Your task to perform on an android device: toggle javascript in the chrome app Image 0: 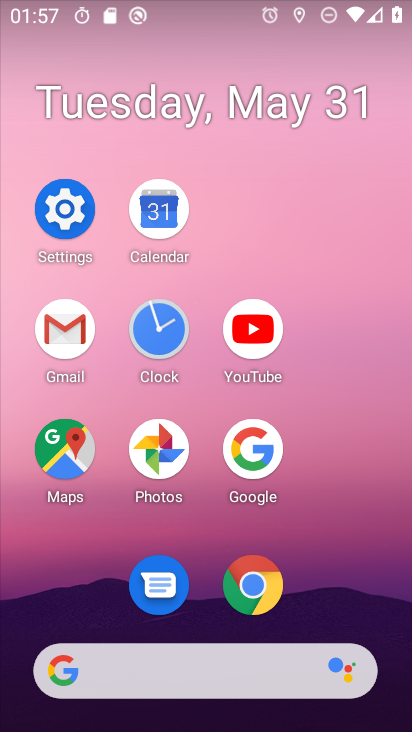
Step 0: click (279, 589)
Your task to perform on an android device: toggle javascript in the chrome app Image 1: 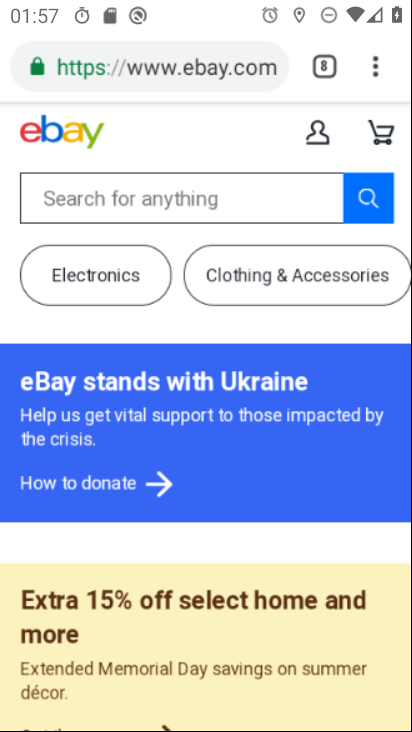
Step 1: click (366, 71)
Your task to perform on an android device: toggle javascript in the chrome app Image 2: 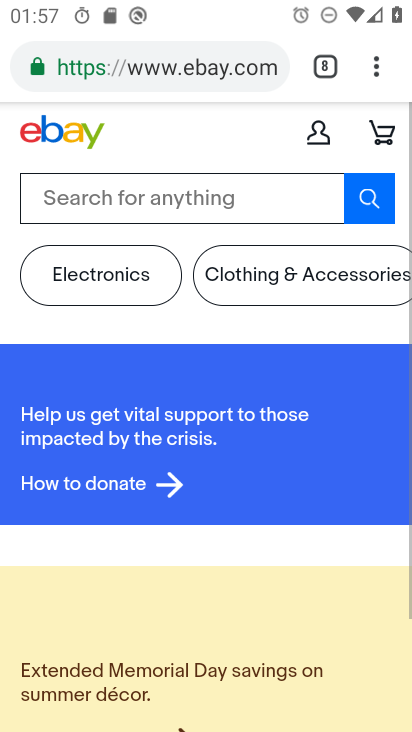
Step 2: click (394, 66)
Your task to perform on an android device: toggle javascript in the chrome app Image 3: 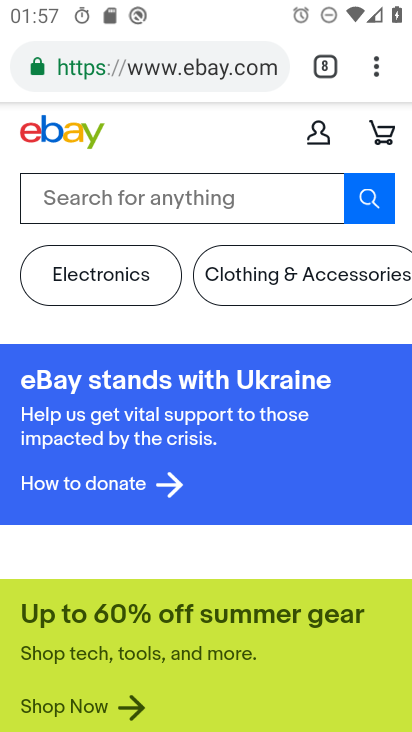
Step 3: click (394, 66)
Your task to perform on an android device: toggle javascript in the chrome app Image 4: 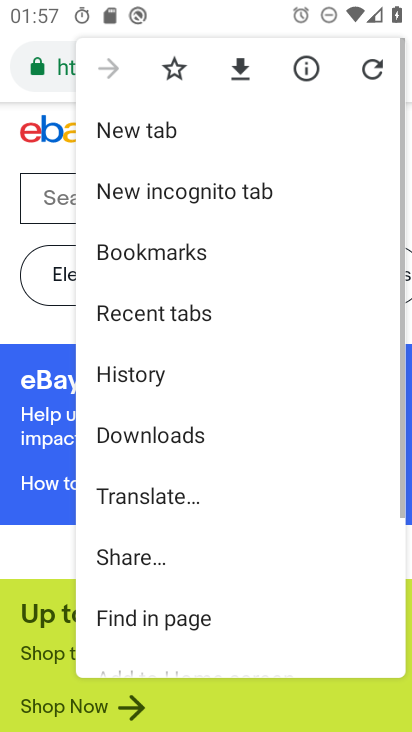
Step 4: drag from (265, 586) to (205, 166)
Your task to perform on an android device: toggle javascript in the chrome app Image 5: 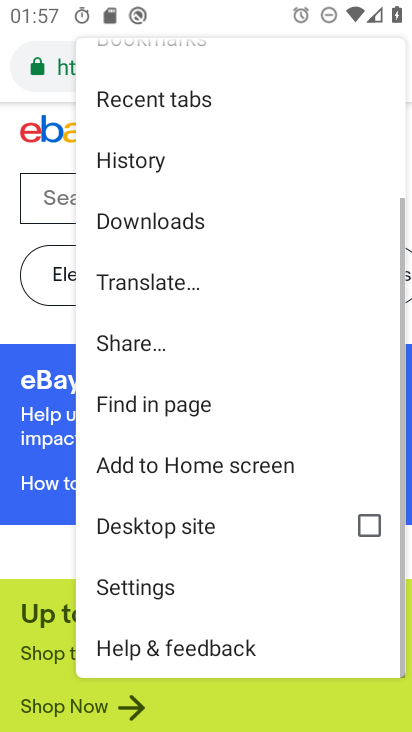
Step 5: click (163, 573)
Your task to perform on an android device: toggle javascript in the chrome app Image 6: 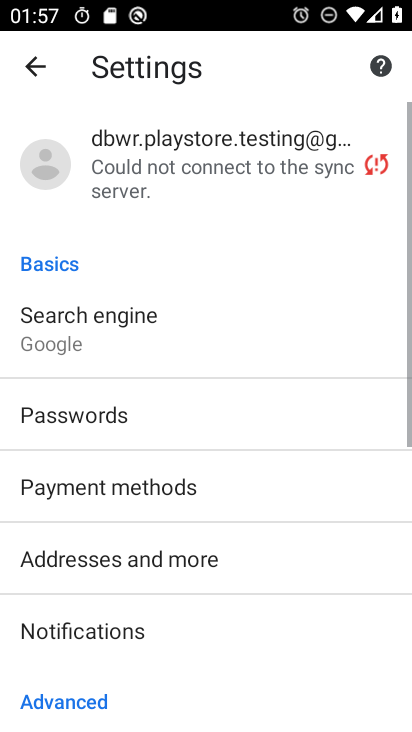
Step 6: drag from (163, 573) to (177, 152)
Your task to perform on an android device: toggle javascript in the chrome app Image 7: 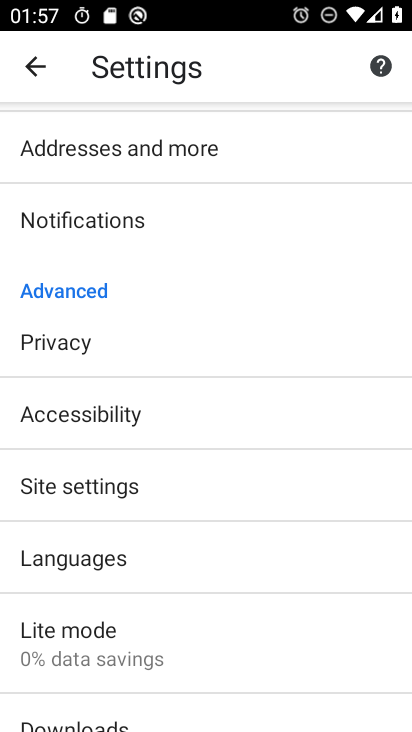
Step 7: click (152, 494)
Your task to perform on an android device: toggle javascript in the chrome app Image 8: 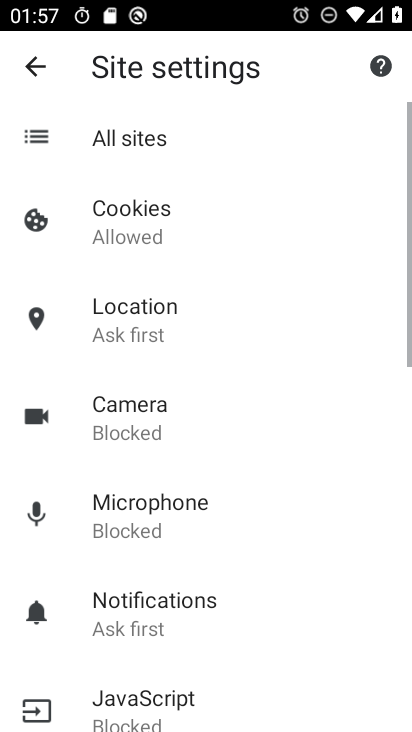
Step 8: drag from (199, 671) to (220, 215)
Your task to perform on an android device: toggle javascript in the chrome app Image 9: 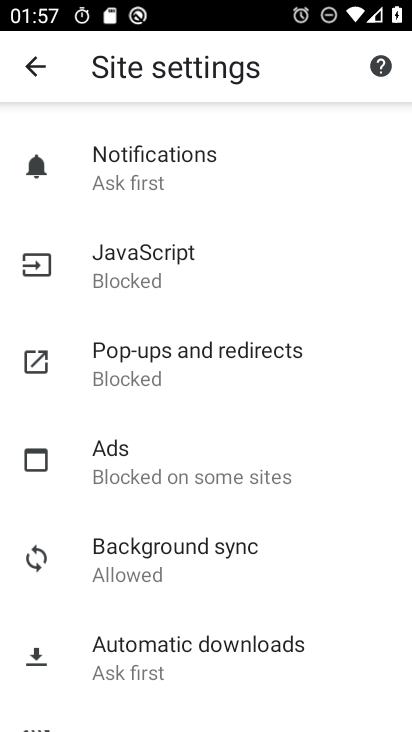
Step 9: click (201, 270)
Your task to perform on an android device: toggle javascript in the chrome app Image 10: 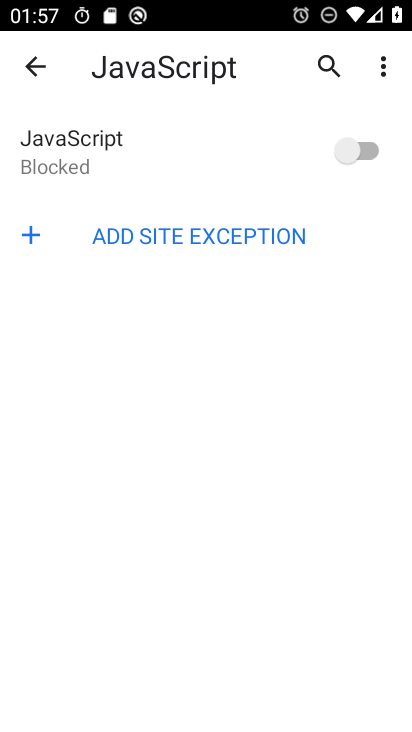
Step 10: click (342, 150)
Your task to perform on an android device: toggle javascript in the chrome app Image 11: 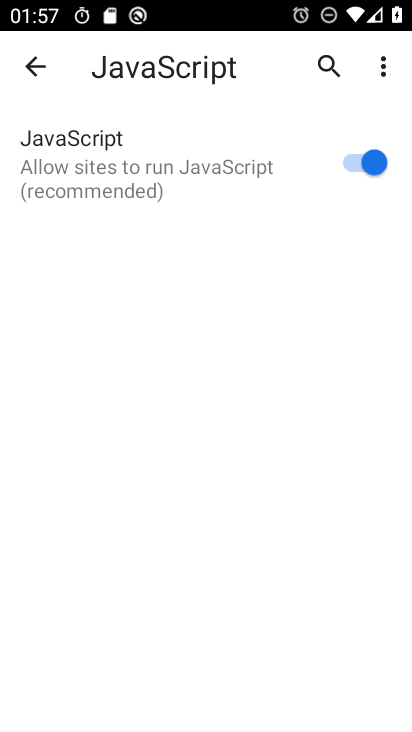
Step 11: task complete